Your task to perform on an android device: see sites visited before in the chrome app Image 0: 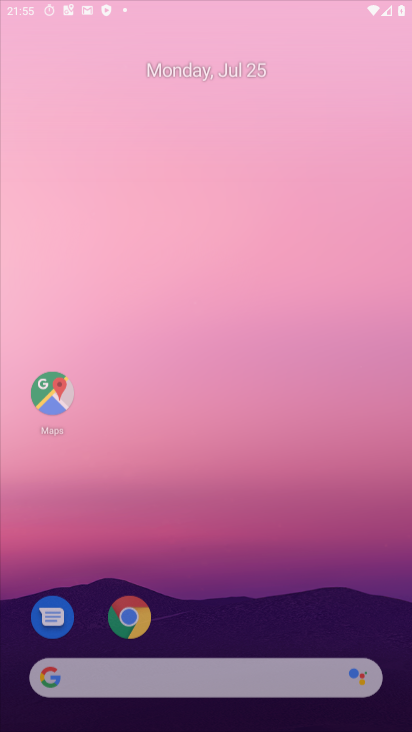
Step 0: press home button
Your task to perform on an android device: see sites visited before in the chrome app Image 1: 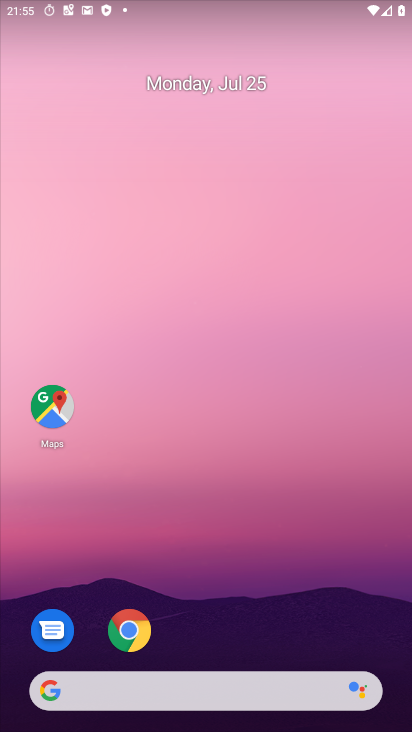
Step 1: drag from (228, 640) to (229, 89)
Your task to perform on an android device: see sites visited before in the chrome app Image 2: 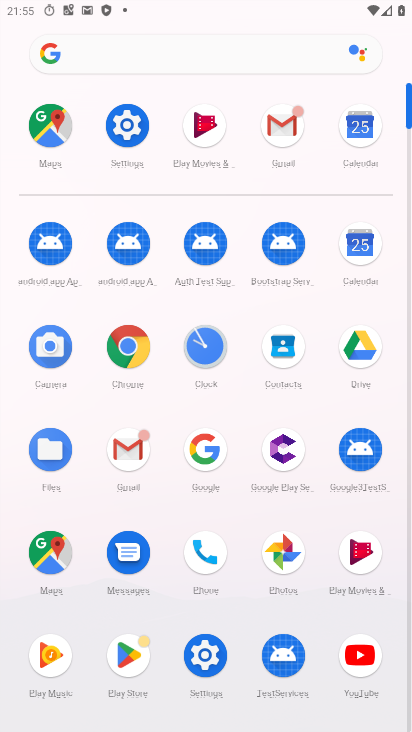
Step 2: click (134, 343)
Your task to perform on an android device: see sites visited before in the chrome app Image 3: 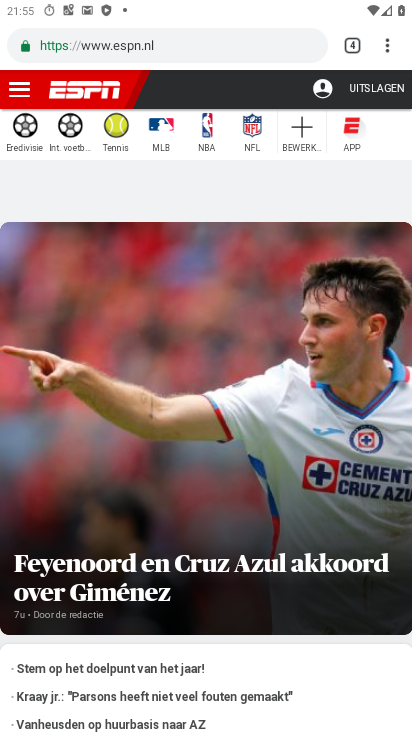
Step 3: task complete